Your task to perform on an android device: Do I have any events today? Image 0: 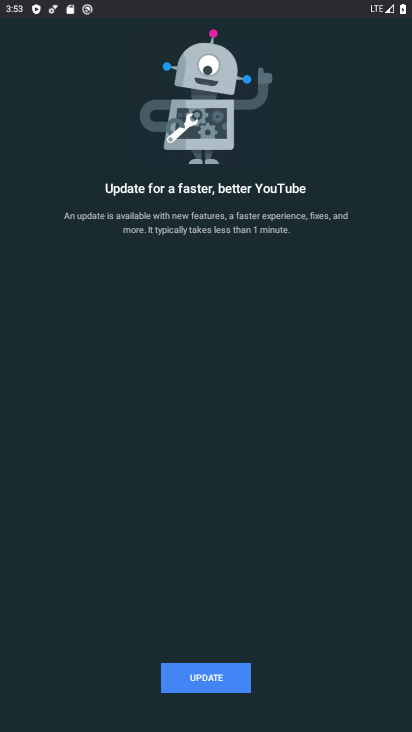
Step 0: press home button
Your task to perform on an android device: Do I have any events today? Image 1: 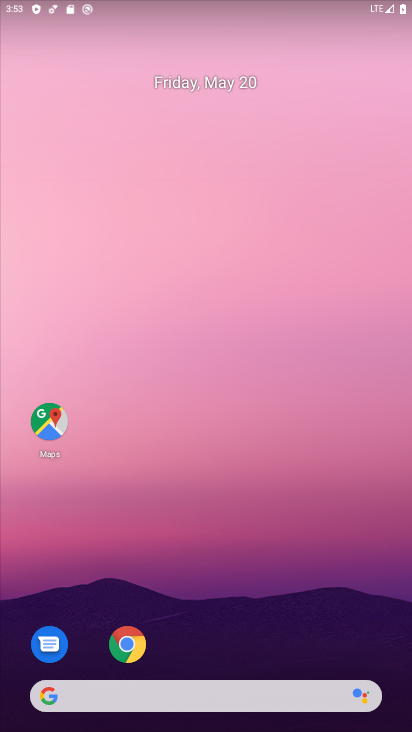
Step 1: drag from (265, 711) to (269, 172)
Your task to perform on an android device: Do I have any events today? Image 2: 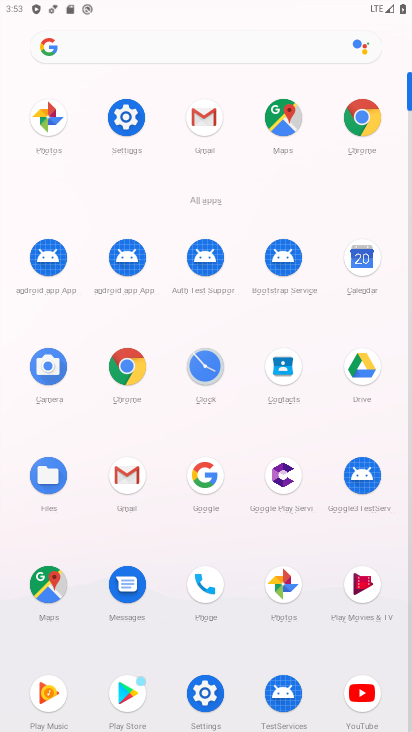
Step 2: click (361, 262)
Your task to perform on an android device: Do I have any events today? Image 3: 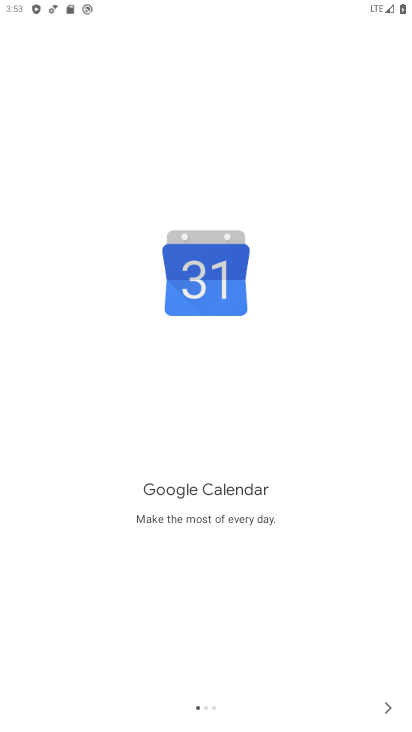
Step 3: click (381, 700)
Your task to perform on an android device: Do I have any events today? Image 4: 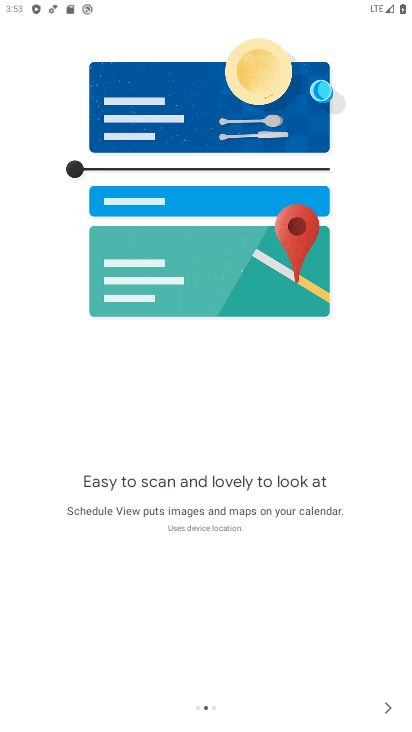
Step 4: click (379, 700)
Your task to perform on an android device: Do I have any events today? Image 5: 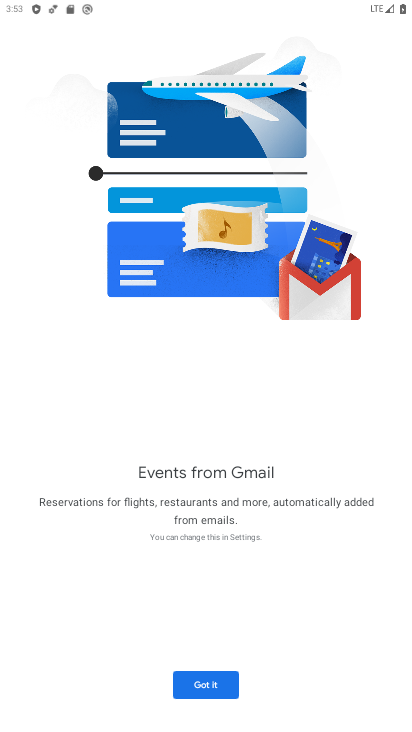
Step 5: click (204, 679)
Your task to perform on an android device: Do I have any events today? Image 6: 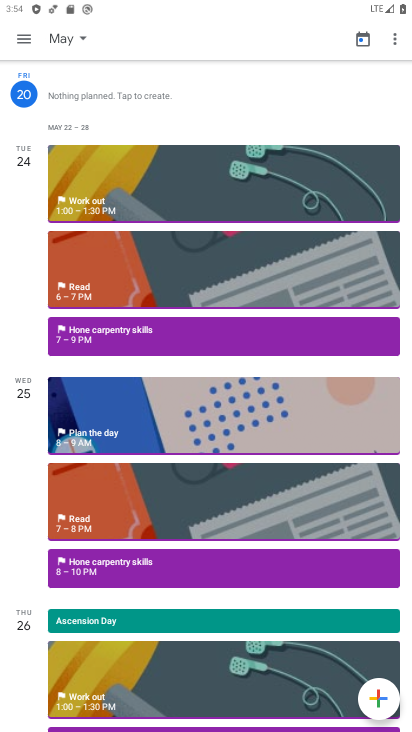
Step 6: task complete